Your task to perform on an android device: Open Android settings Image 0: 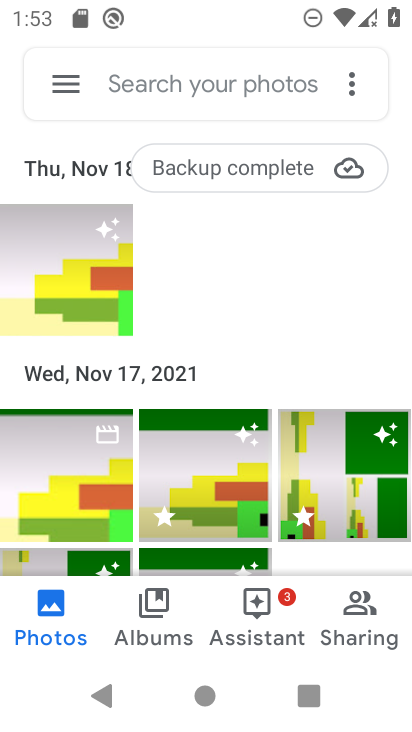
Step 0: press home button
Your task to perform on an android device: Open Android settings Image 1: 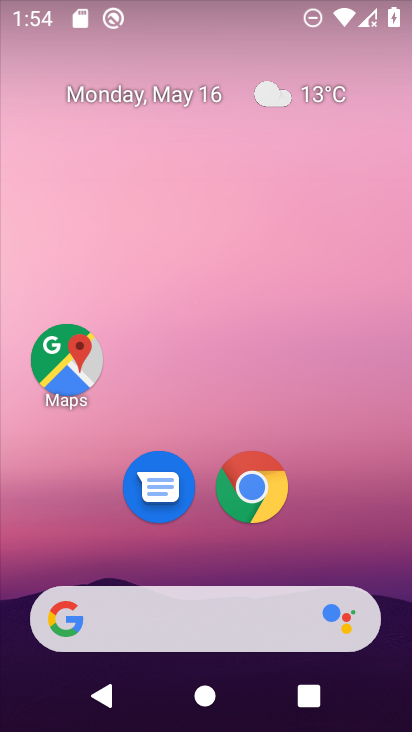
Step 1: drag from (399, 647) to (312, 254)
Your task to perform on an android device: Open Android settings Image 2: 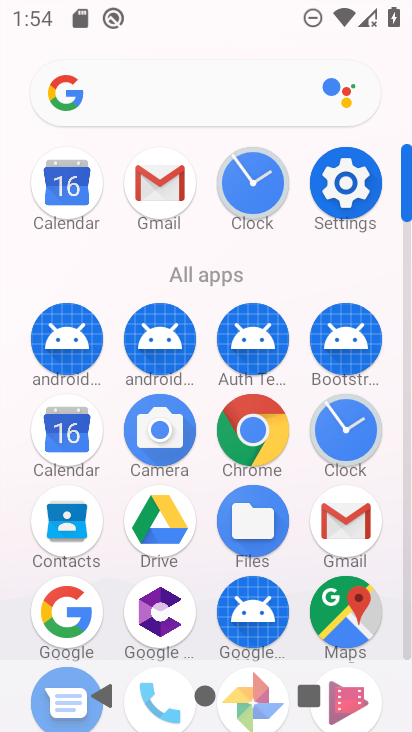
Step 2: click (332, 183)
Your task to perform on an android device: Open Android settings Image 3: 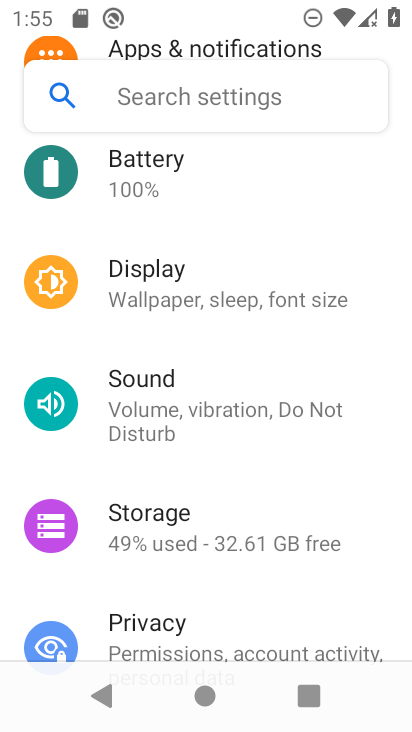
Step 3: task complete